Your task to perform on an android device: change text size in settings app Image 0: 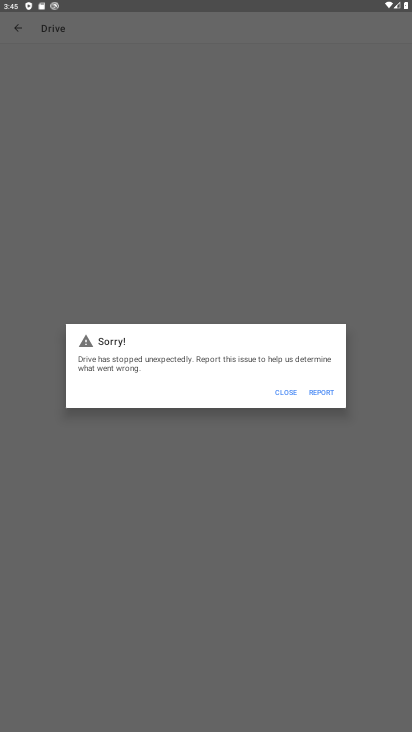
Step 0: press home button
Your task to perform on an android device: change text size in settings app Image 1: 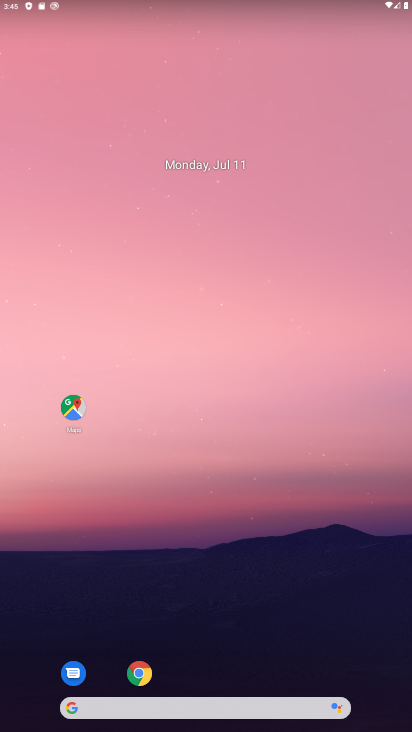
Step 1: drag from (239, 605) to (299, 79)
Your task to perform on an android device: change text size in settings app Image 2: 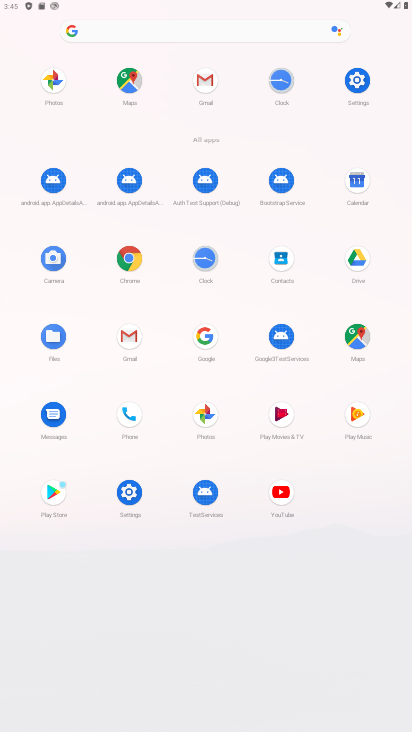
Step 2: click (125, 484)
Your task to perform on an android device: change text size in settings app Image 3: 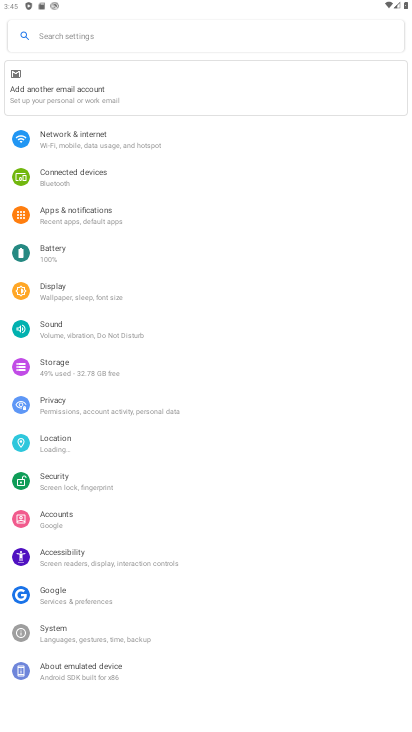
Step 3: click (58, 288)
Your task to perform on an android device: change text size in settings app Image 4: 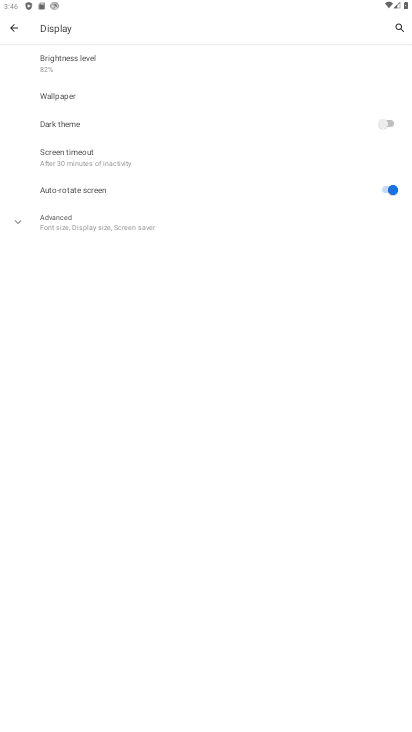
Step 4: click (48, 222)
Your task to perform on an android device: change text size in settings app Image 5: 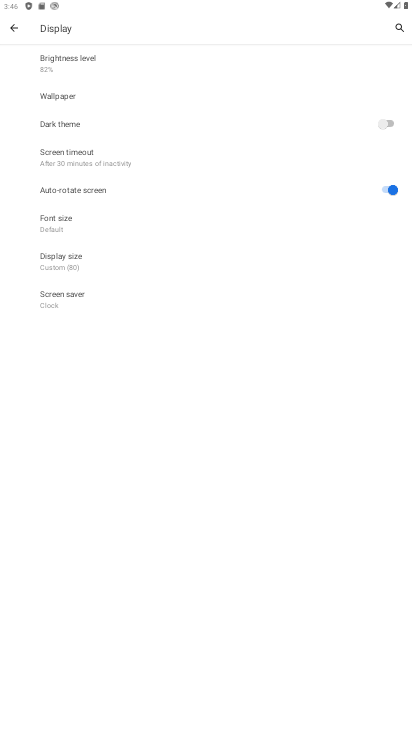
Step 5: click (65, 223)
Your task to perform on an android device: change text size in settings app Image 6: 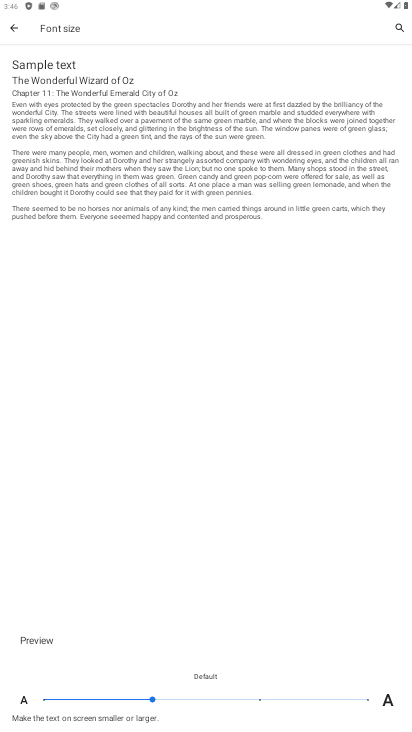
Step 6: click (209, 696)
Your task to perform on an android device: change text size in settings app Image 7: 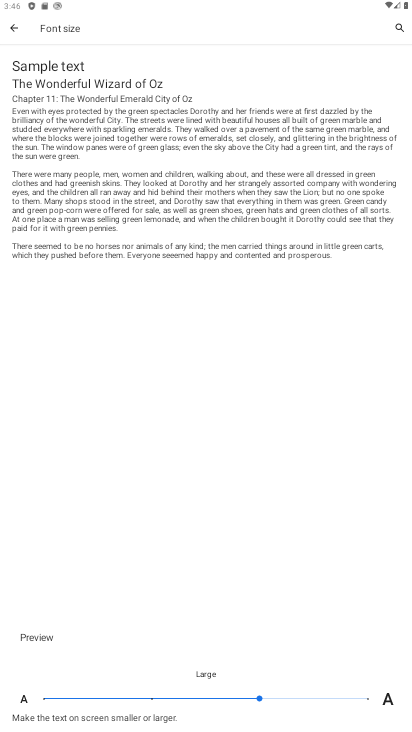
Step 7: task complete